Your task to perform on an android device: check storage Image 0: 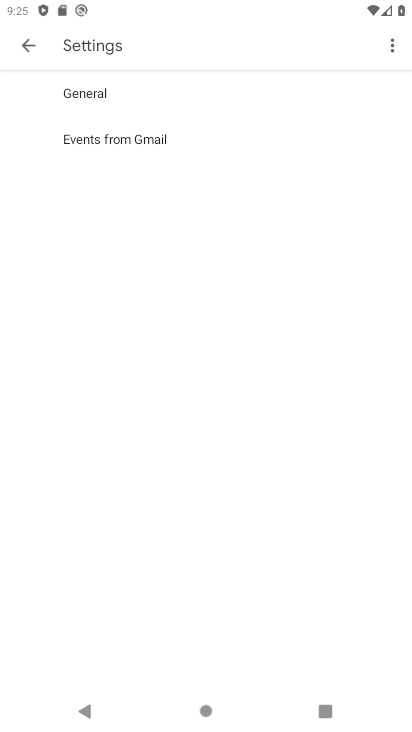
Step 0: press home button
Your task to perform on an android device: check storage Image 1: 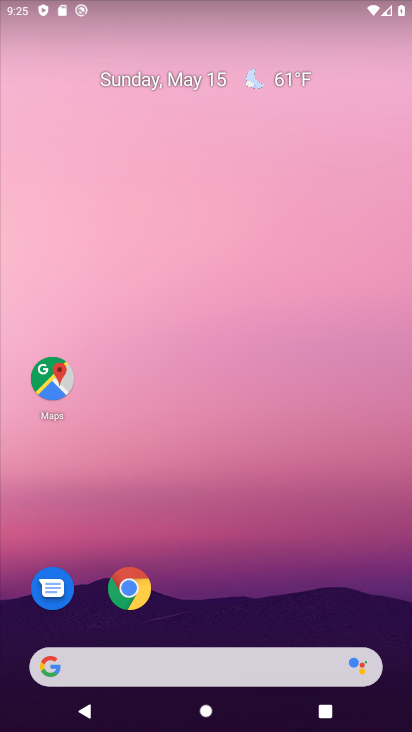
Step 1: drag from (244, 621) to (315, 25)
Your task to perform on an android device: check storage Image 2: 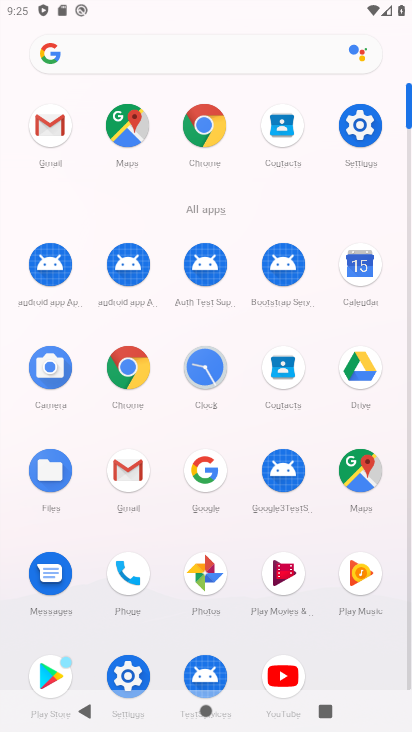
Step 2: click (366, 146)
Your task to perform on an android device: check storage Image 3: 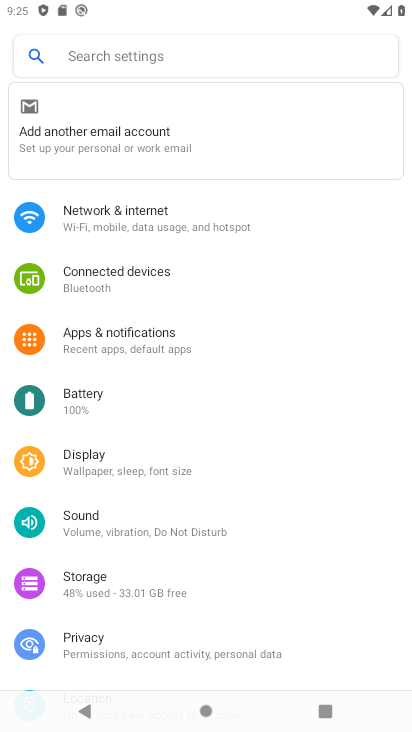
Step 3: click (105, 595)
Your task to perform on an android device: check storage Image 4: 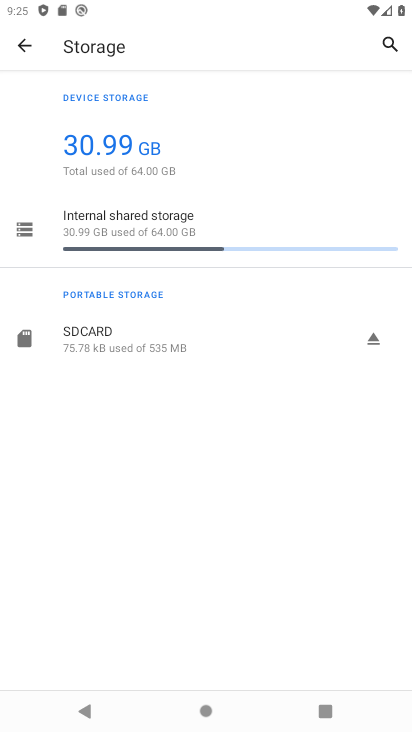
Step 4: click (144, 229)
Your task to perform on an android device: check storage Image 5: 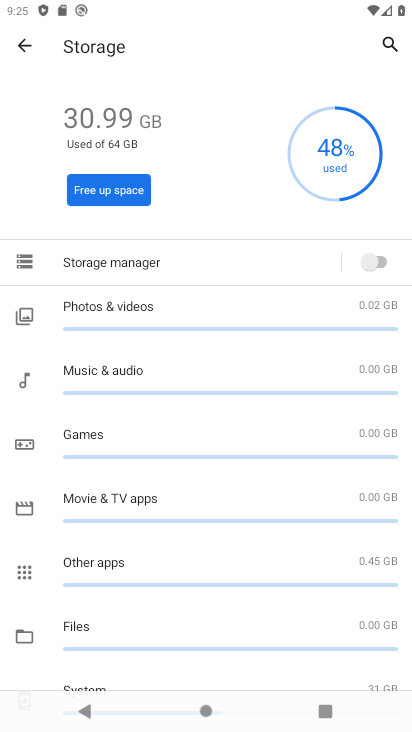
Step 5: task complete